Your task to perform on an android device: check storage Image 0: 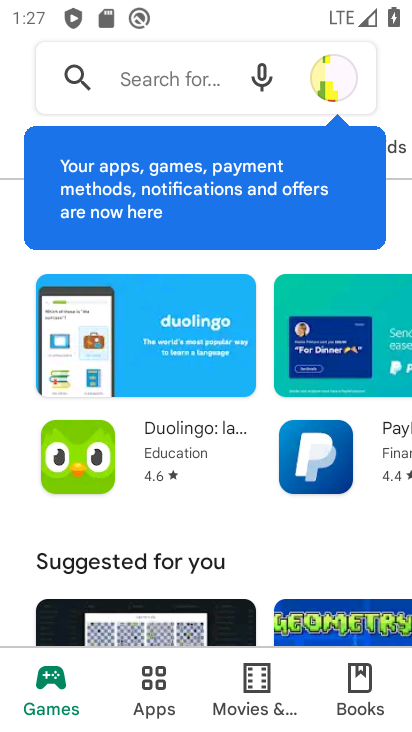
Step 0: press home button
Your task to perform on an android device: check storage Image 1: 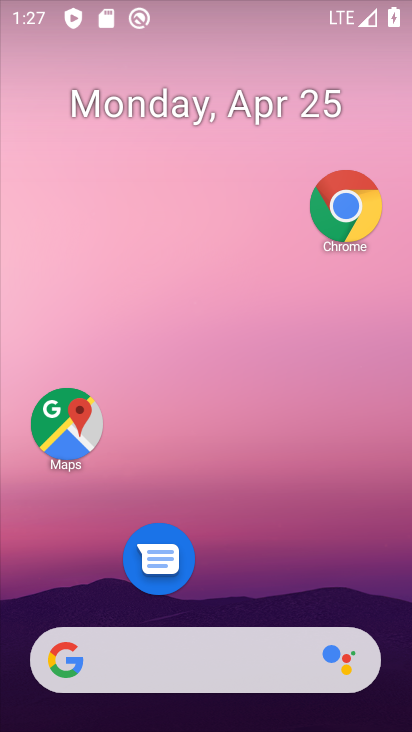
Step 1: drag from (223, 525) to (269, 67)
Your task to perform on an android device: check storage Image 2: 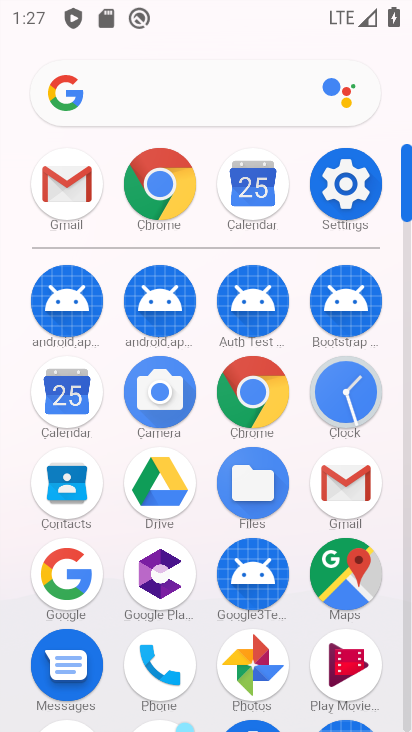
Step 2: click (343, 177)
Your task to perform on an android device: check storage Image 3: 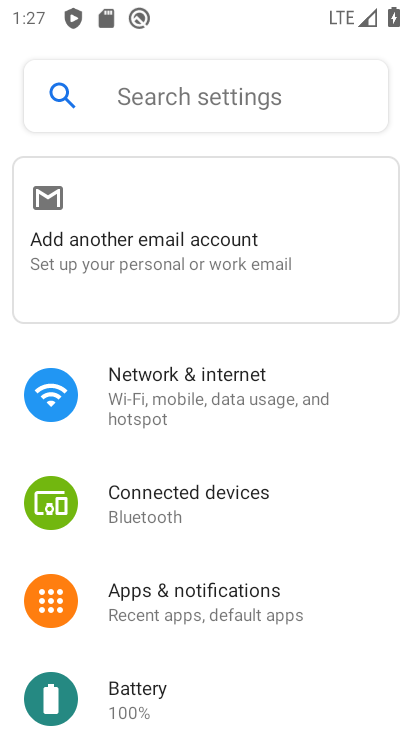
Step 3: drag from (200, 661) to (324, 82)
Your task to perform on an android device: check storage Image 4: 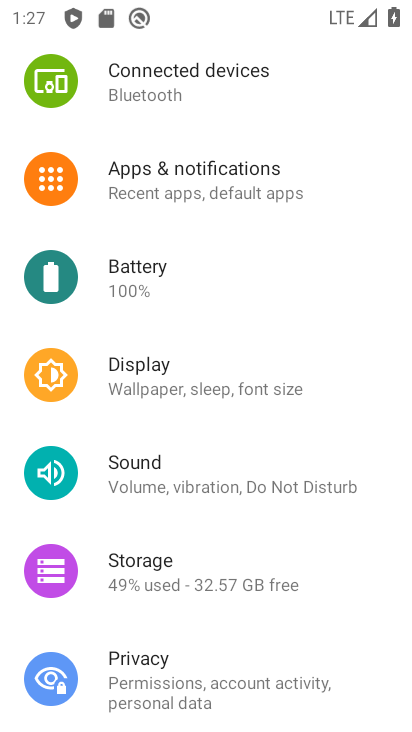
Step 4: click (128, 578)
Your task to perform on an android device: check storage Image 5: 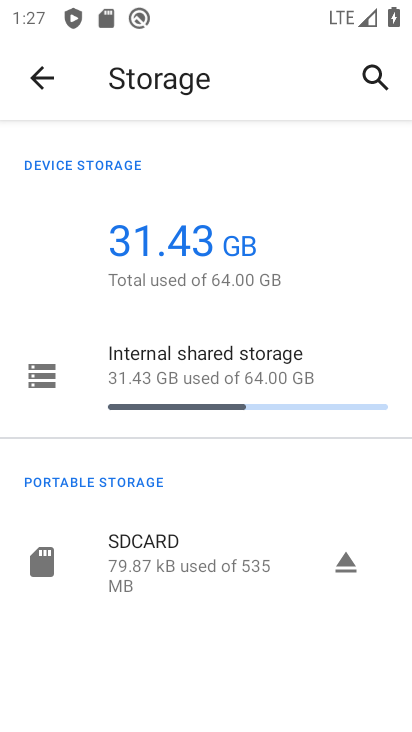
Step 5: task complete